Your task to perform on an android device: open a new tab in the chrome app Image 0: 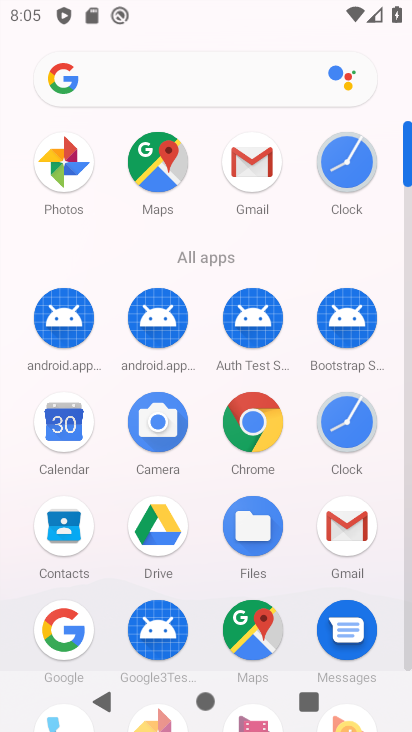
Step 0: click (243, 417)
Your task to perform on an android device: open a new tab in the chrome app Image 1: 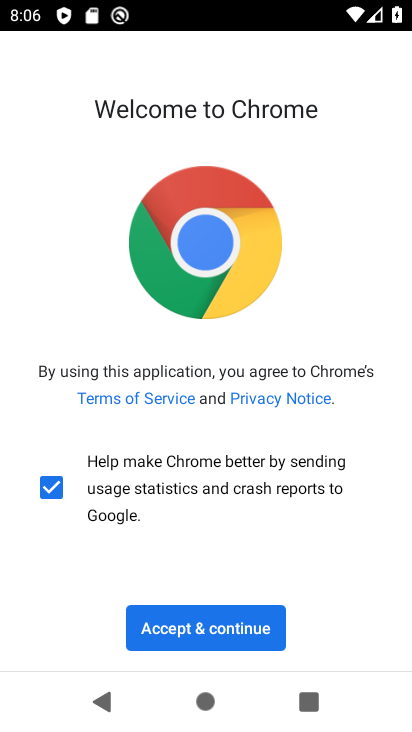
Step 1: click (269, 619)
Your task to perform on an android device: open a new tab in the chrome app Image 2: 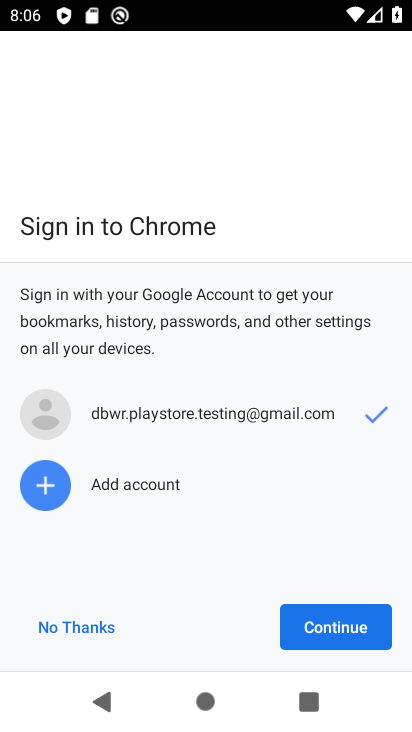
Step 2: click (308, 627)
Your task to perform on an android device: open a new tab in the chrome app Image 3: 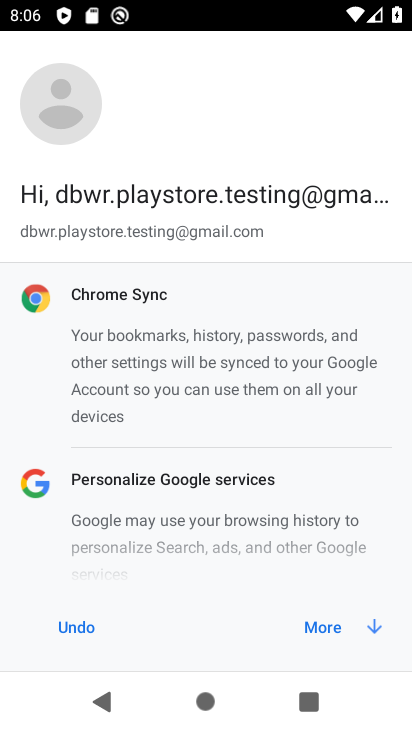
Step 3: click (329, 622)
Your task to perform on an android device: open a new tab in the chrome app Image 4: 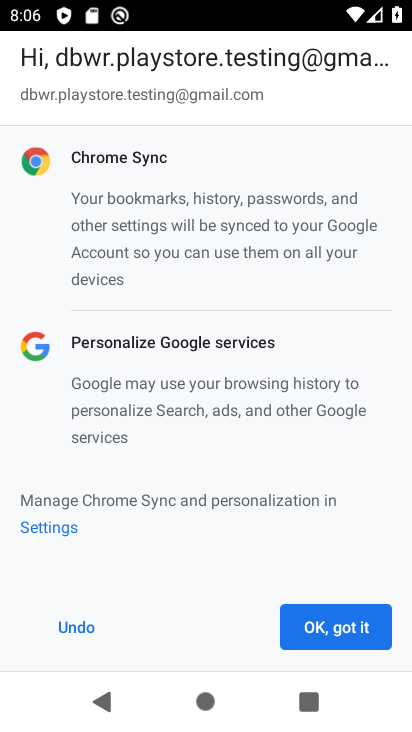
Step 4: click (330, 624)
Your task to perform on an android device: open a new tab in the chrome app Image 5: 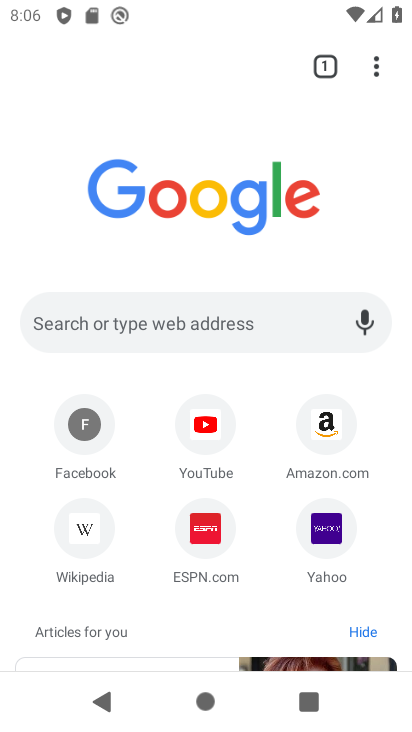
Step 5: click (373, 65)
Your task to perform on an android device: open a new tab in the chrome app Image 6: 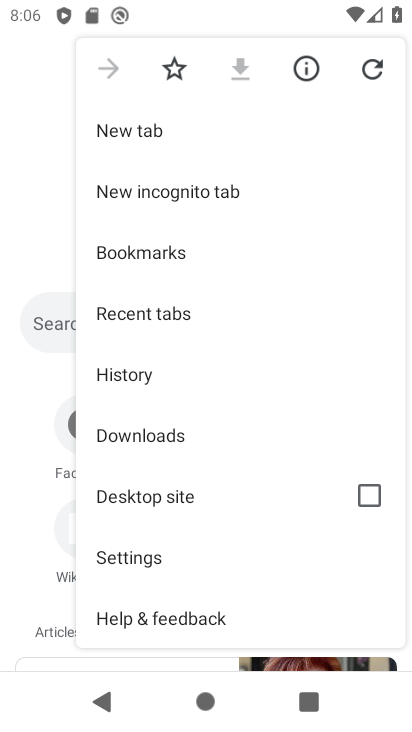
Step 6: click (373, 65)
Your task to perform on an android device: open a new tab in the chrome app Image 7: 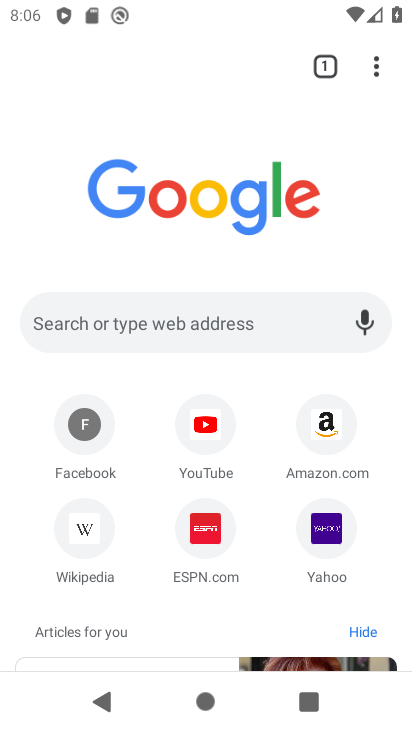
Step 7: click (373, 65)
Your task to perform on an android device: open a new tab in the chrome app Image 8: 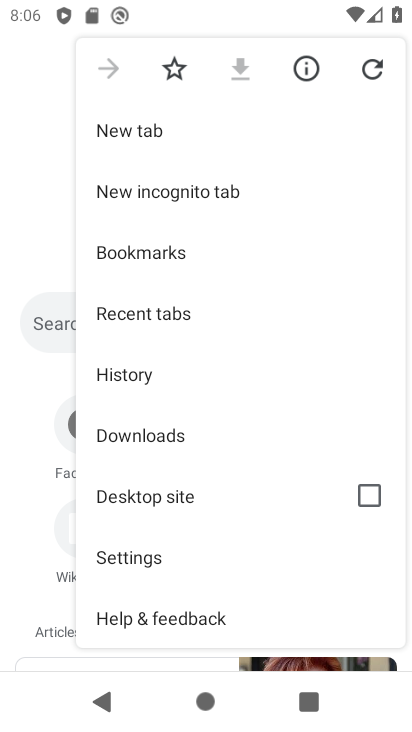
Step 8: click (293, 128)
Your task to perform on an android device: open a new tab in the chrome app Image 9: 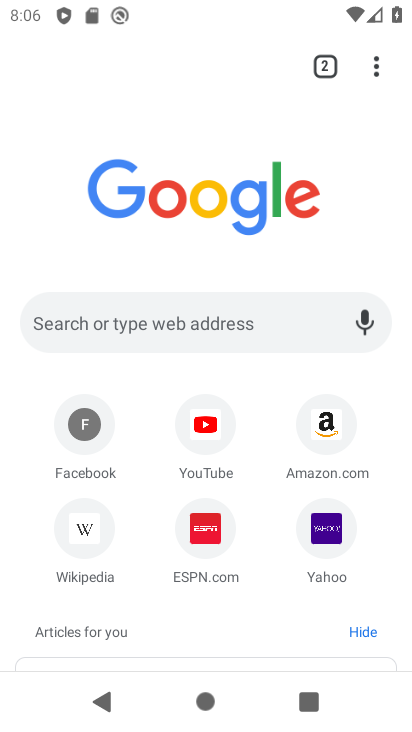
Step 9: task complete